Your task to perform on an android device: toggle data saver in the chrome app Image 0: 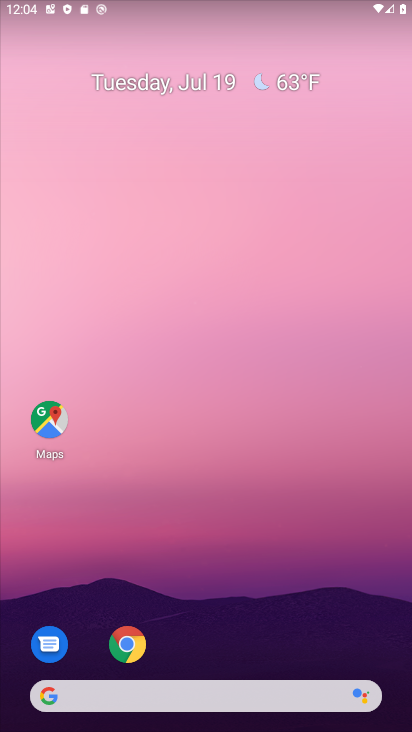
Step 0: drag from (219, 729) to (209, 98)
Your task to perform on an android device: toggle data saver in the chrome app Image 1: 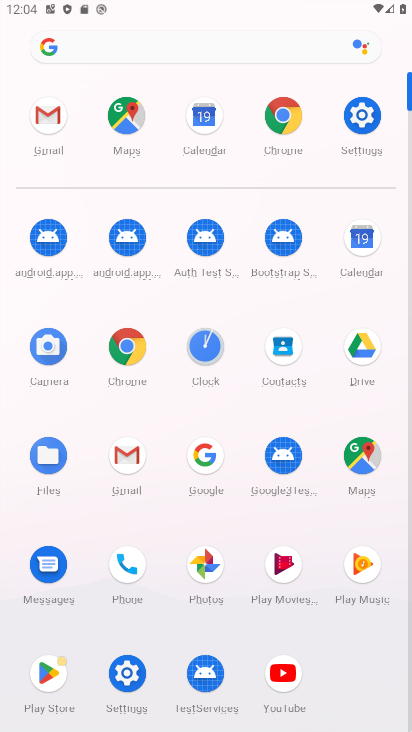
Step 1: click (124, 347)
Your task to perform on an android device: toggle data saver in the chrome app Image 2: 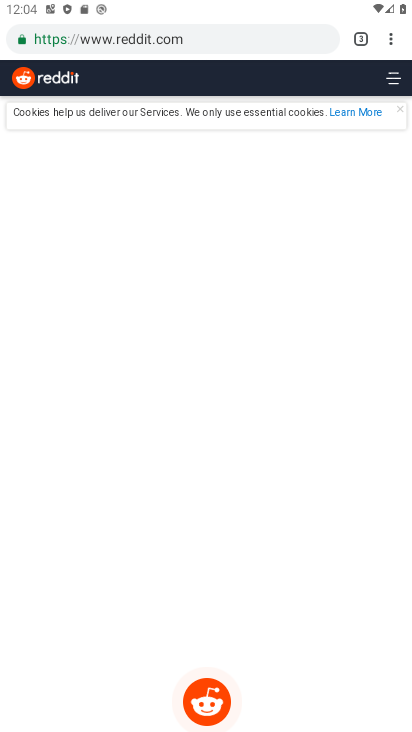
Step 2: click (390, 43)
Your task to perform on an android device: toggle data saver in the chrome app Image 3: 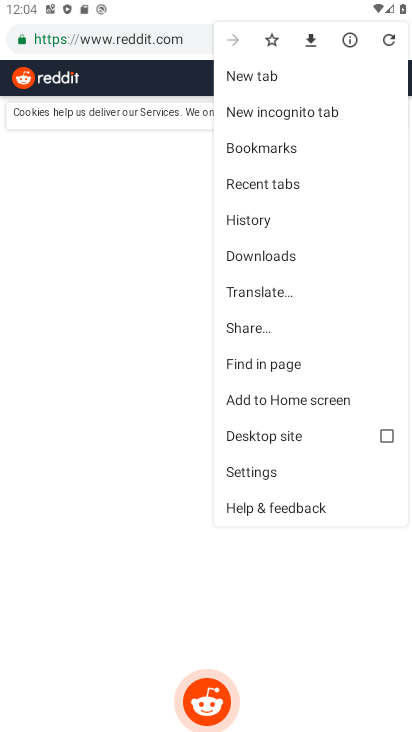
Step 3: click (258, 471)
Your task to perform on an android device: toggle data saver in the chrome app Image 4: 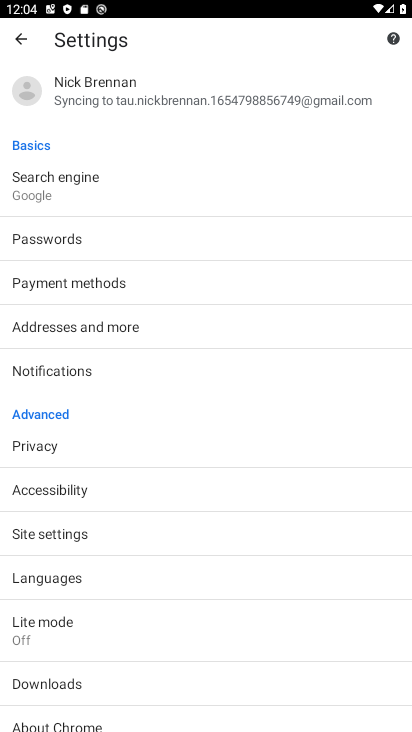
Step 4: click (50, 622)
Your task to perform on an android device: toggle data saver in the chrome app Image 5: 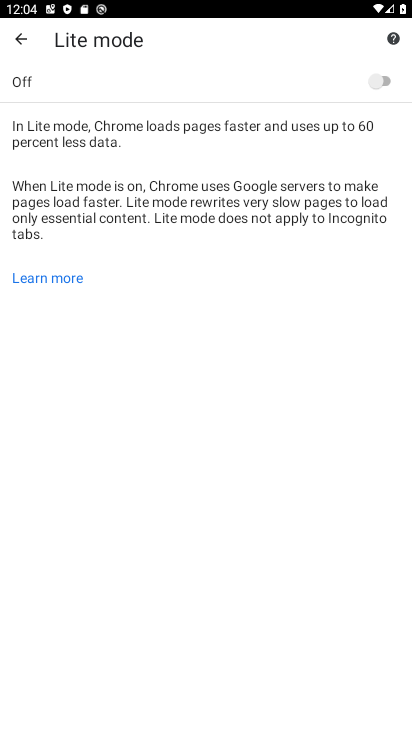
Step 5: task complete